Your task to perform on an android device: Go to battery settings Image 0: 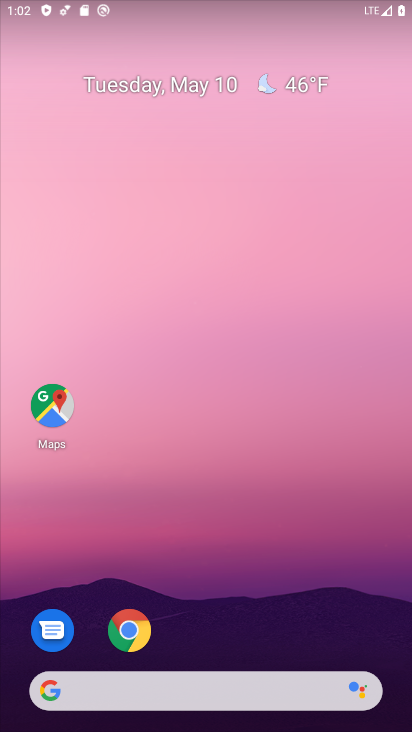
Step 0: drag from (232, 664) to (158, 49)
Your task to perform on an android device: Go to battery settings Image 1: 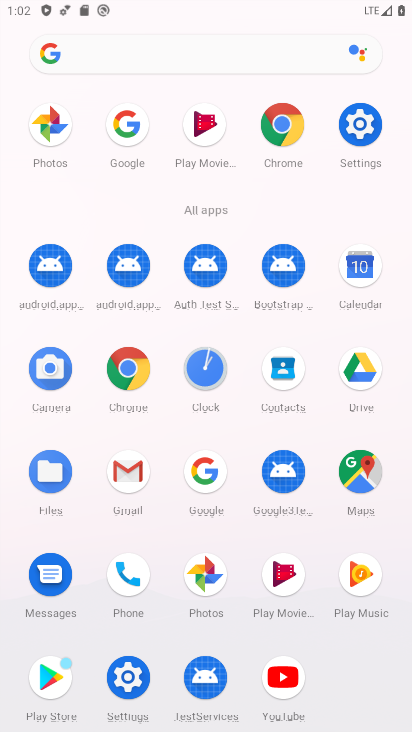
Step 1: click (358, 124)
Your task to perform on an android device: Go to battery settings Image 2: 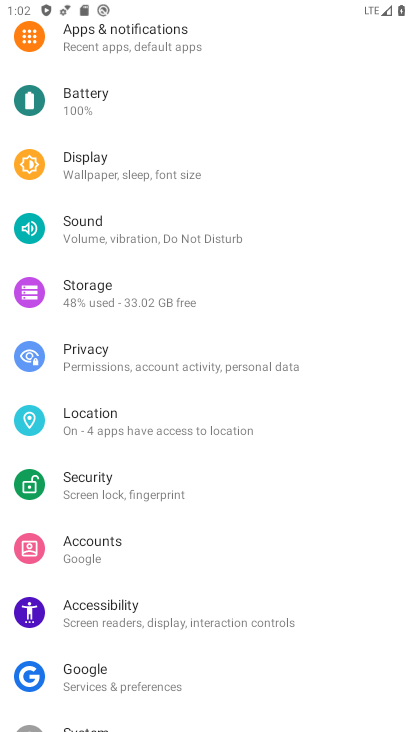
Step 2: drag from (166, 569) to (143, 597)
Your task to perform on an android device: Go to battery settings Image 3: 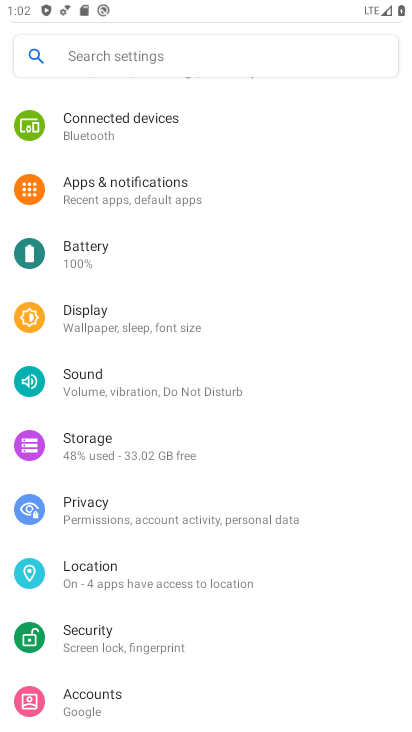
Step 3: click (119, 248)
Your task to perform on an android device: Go to battery settings Image 4: 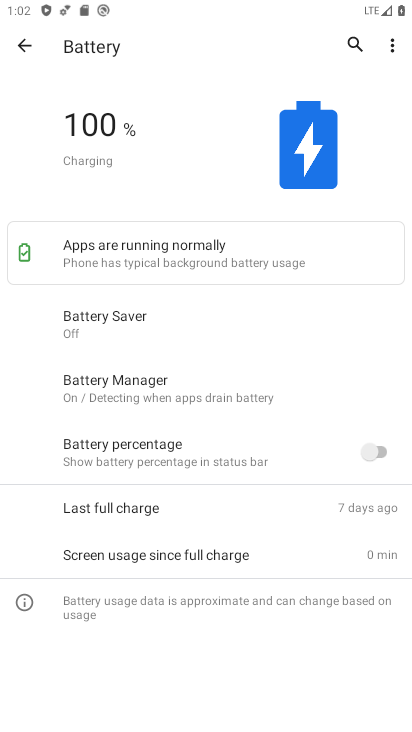
Step 4: task complete